Your task to perform on an android device: change text size in settings app Image 0: 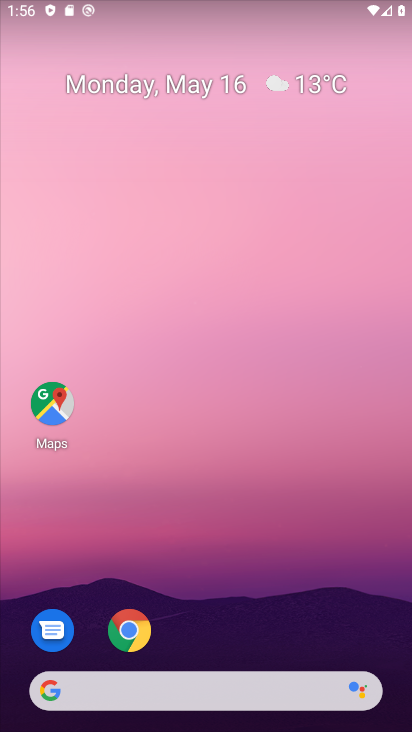
Step 0: drag from (318, 595) to (282, 243)
Your task to perform on an android device: change text size in settings app Image 1: 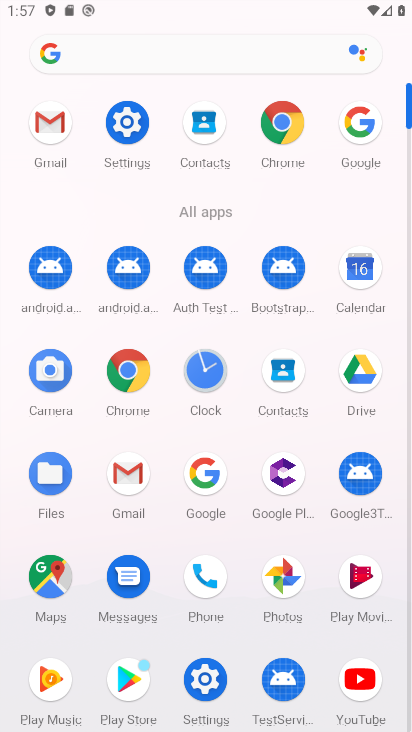
Step 1: click (134, 139)
Your task to perform on an android device: change text size in settings app Image 2: 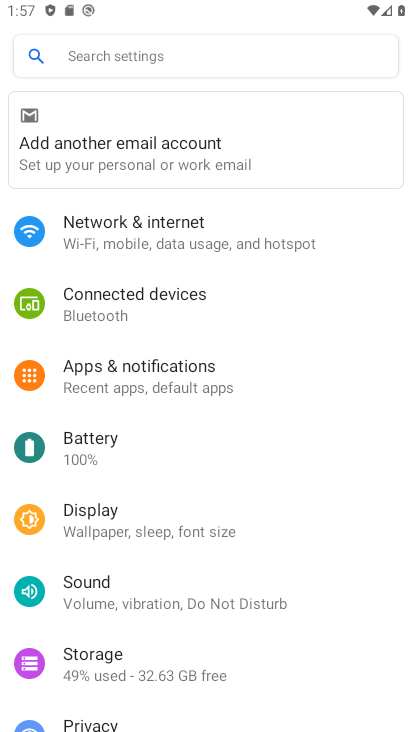
Step 2: click (166, 532)
Your task to perform on an android device: change text size in settings app Image 3: 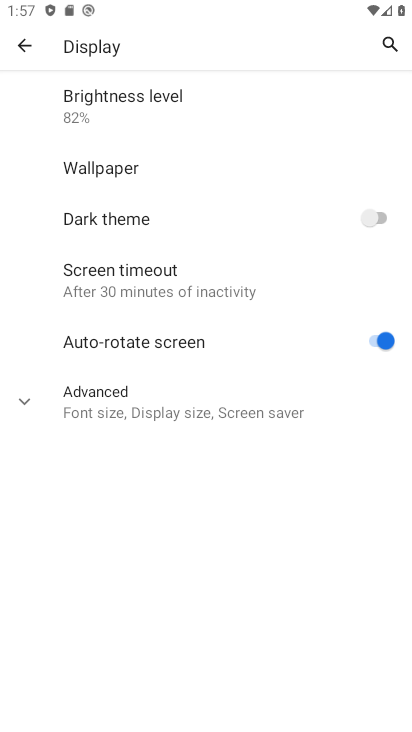
Step 3: click (26, 400)
Your task to perform on an android device: change text size in settings app Image 4: 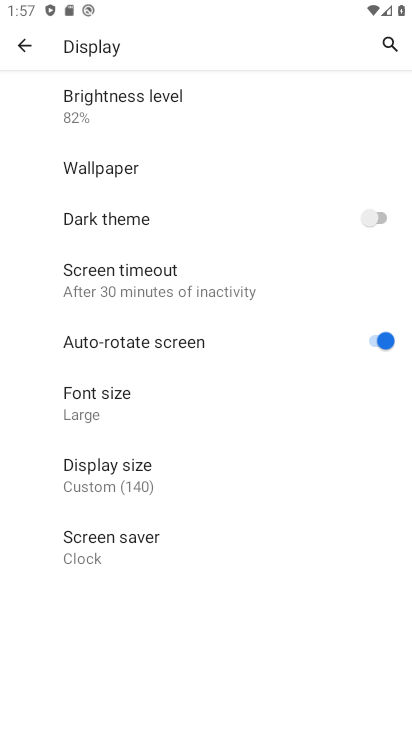
Step 4: click (195, 392)
Your task to perform on an android device: change text size in settings app Image 5: 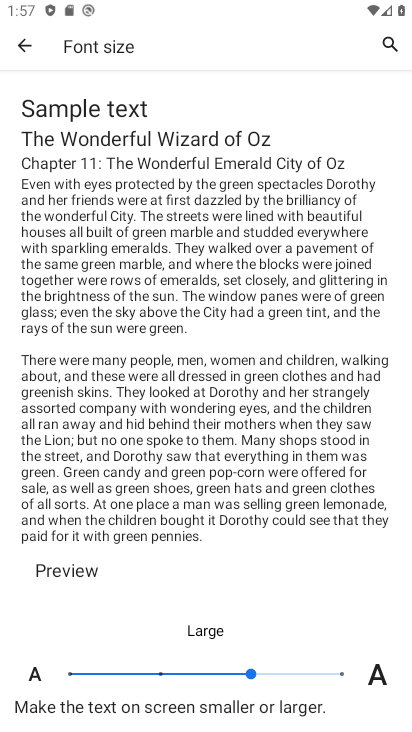
Step 5: click (158, 676)
Your task to perform on an android device: change text size in settings app Image 6: 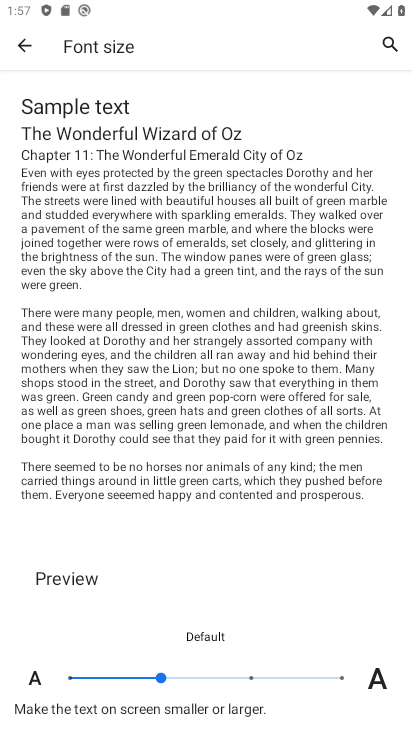
Step 6: task complete